Your task to perform on an android device: Check the news Image 0: 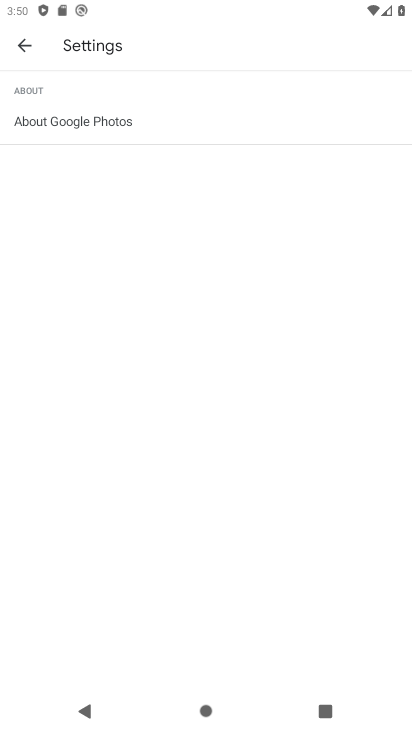
Step 0: press home button
Your task to perform on an android device: Check the news Image 1: 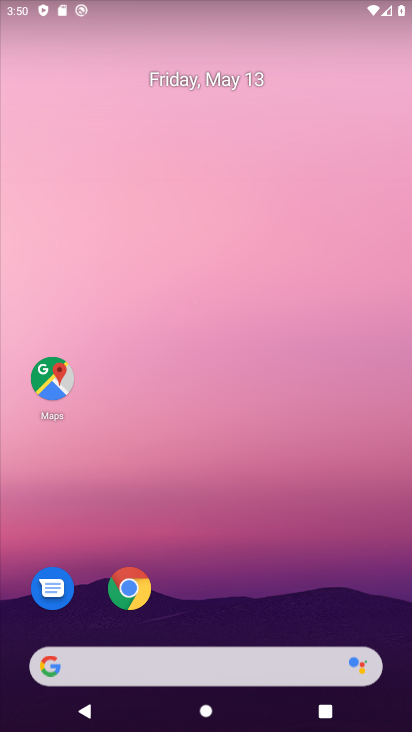
Step 1: click (217, 662)
Your task to perform on an android device: Check the news Image 2: 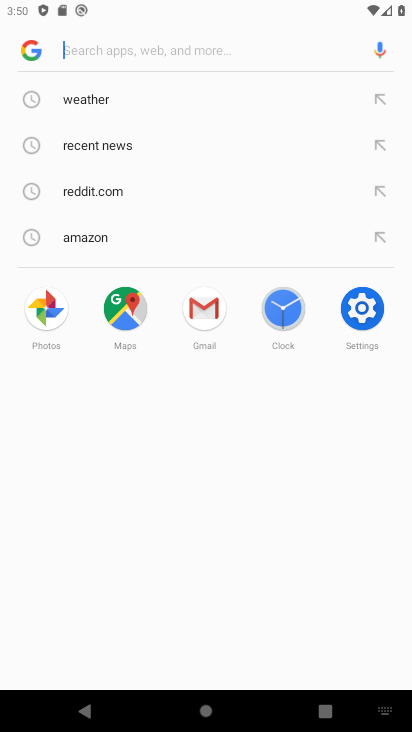
Step 2: type "news"
Your task to perform on an android device: Check the news Image 3: 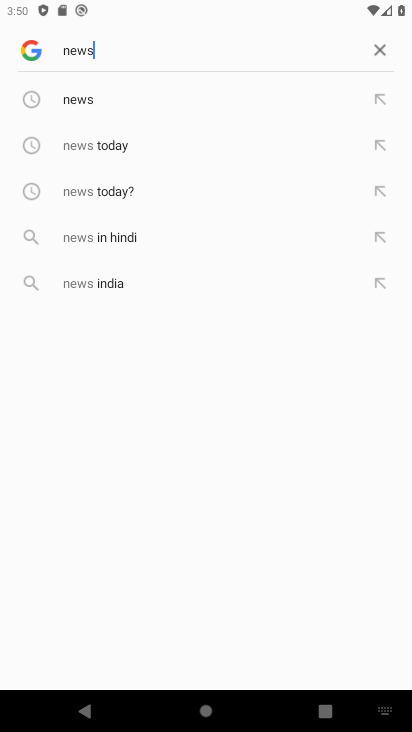
Step 3: click (72, 98)
Your task to perform on an android device: Check the news Image 4: 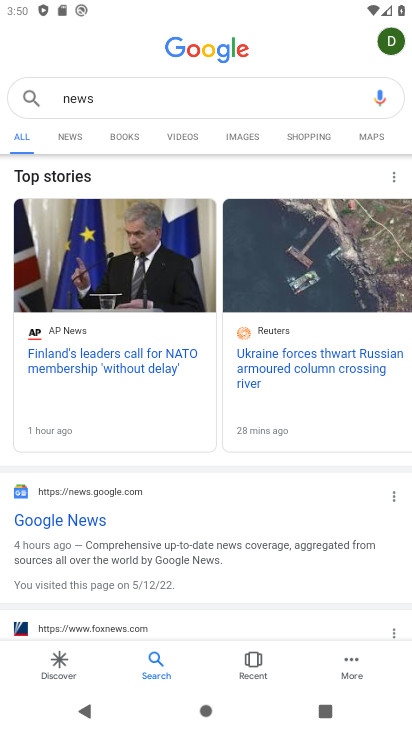
Step 4: task complete